Your task to perform on an android device: turn on javascript in the chrome app Image 0: 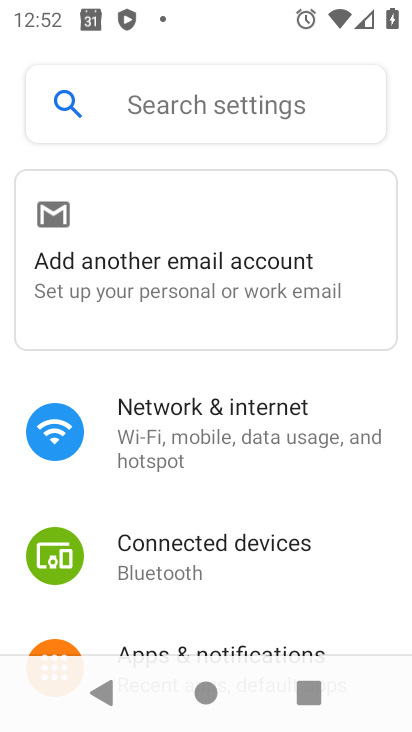
Step 0: press back button
Your task to perform on an android device: turn on javascript in the chrome app Image 1: 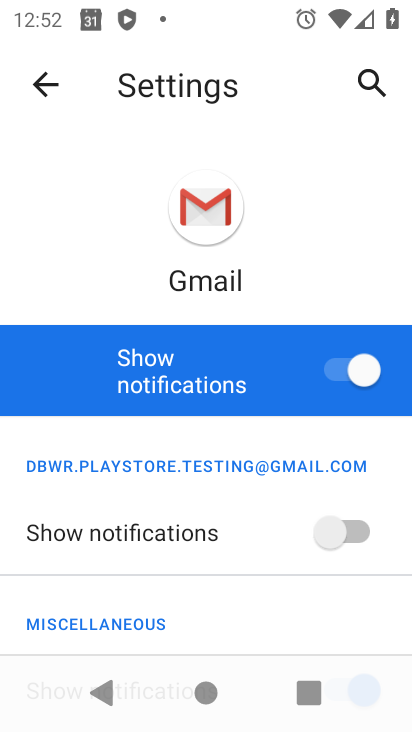
Step 1: press home button
Your task to perform on an android device: turn on javascript in the chrome app Image 2: 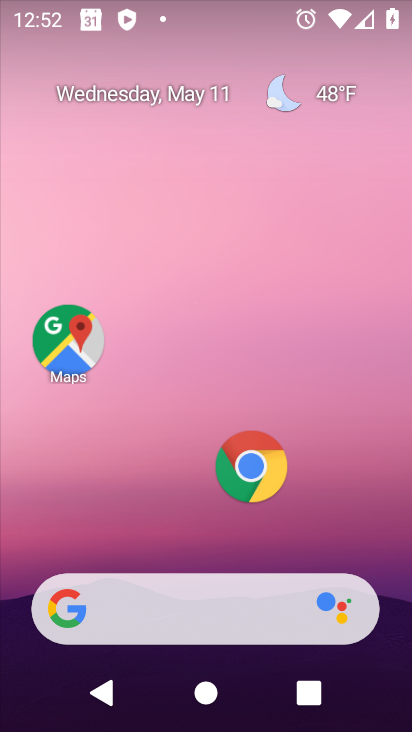
Step 2: drag from (154, 553) to (219, 125)
Your task to perform on an android device: turn on javascript in the chrome app Image 3: 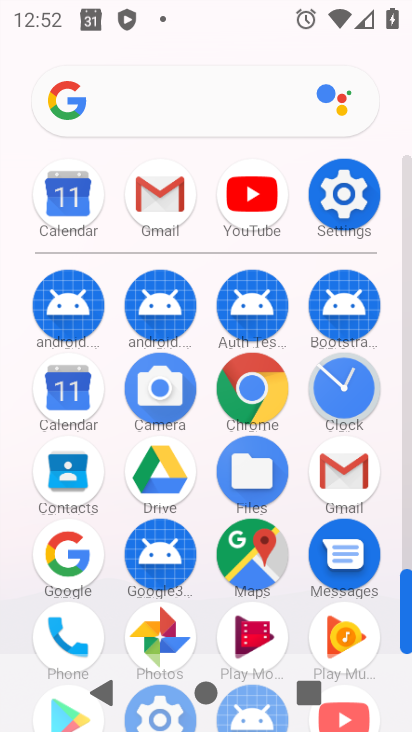
Step 3: click (241, 389)
Your task to perform on an android device: turn on javascript in the chrome app Image 4: 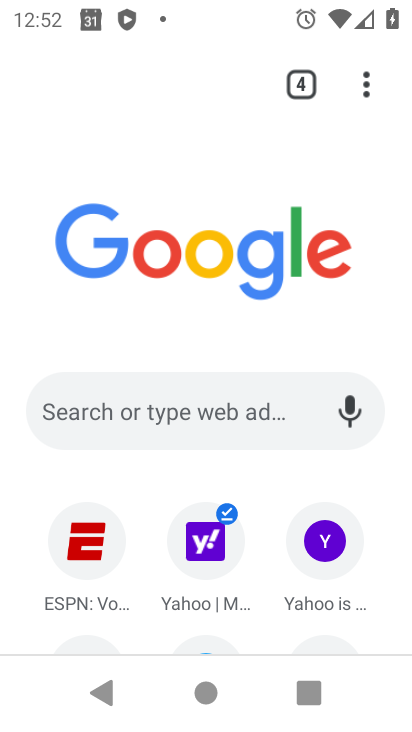
Step 4: drag from (359, 73) to (77, 516)
Your task to perform on an android device: turn on javascript in the chrome app Image 5: 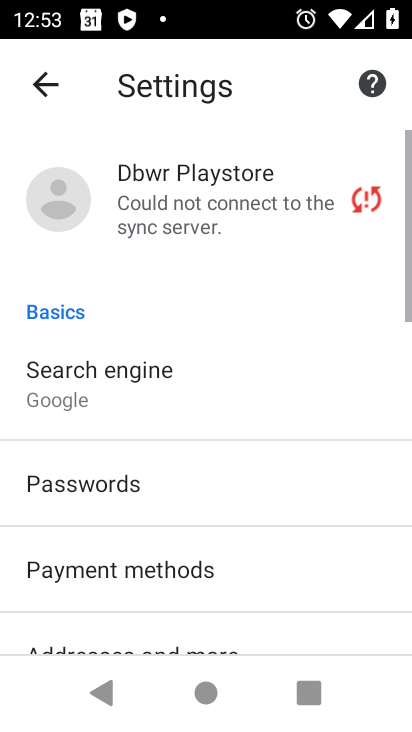
Step 5: drag from (130, 585) to (254, 168)
Your task to perform on an android device: turn on javascript in the chrome app Image 6: 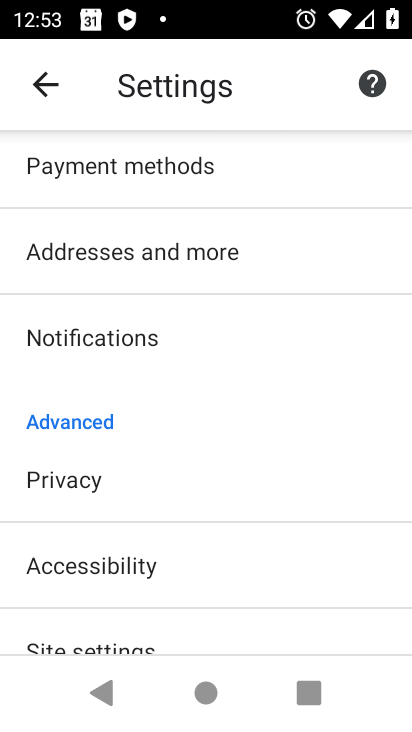
Step 6: drag from (175, 422) to (223, 141)
Your task to perform on an android device: turn on javascript in the chrome app Image 7: 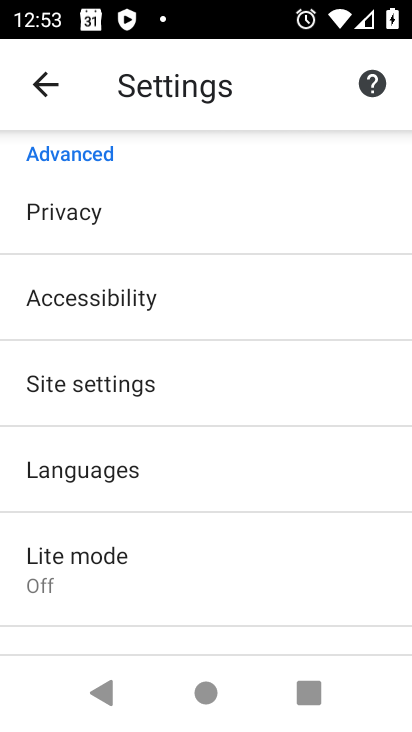
Step 7: drag from (141, 569) to (205, 269)
Your task to perform on an android device: turn on javascript in the chrome app Image 8: 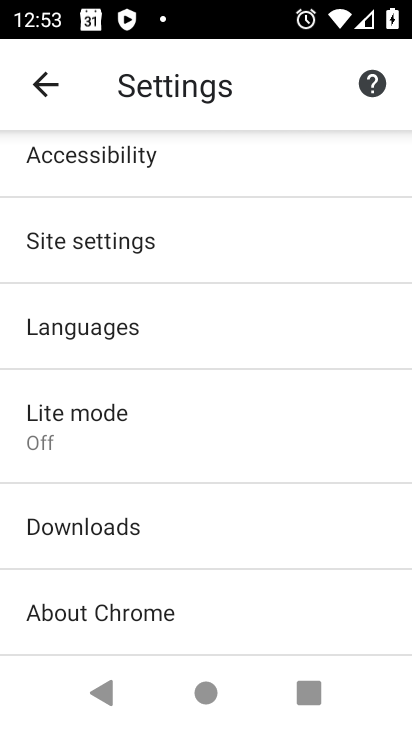
Step 8: click (117, 248)
Your task to perform on an android device: turn on javascript in the chrome app Image 9: 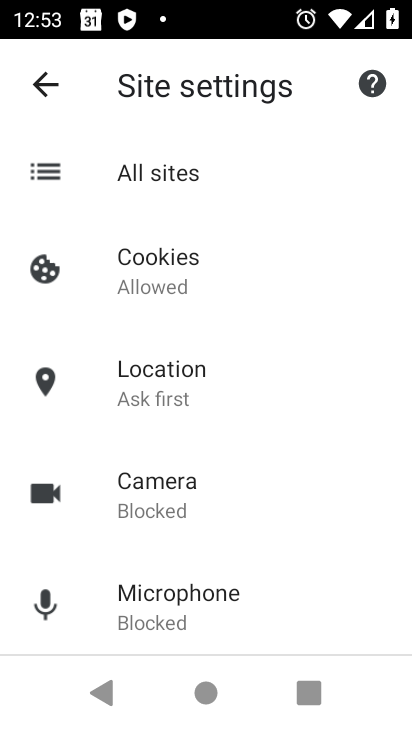
Step 9: drag from (180, 588) to (290, 174)
Your task to perform on an android device: turn on javascript in the chrome app Image 10: 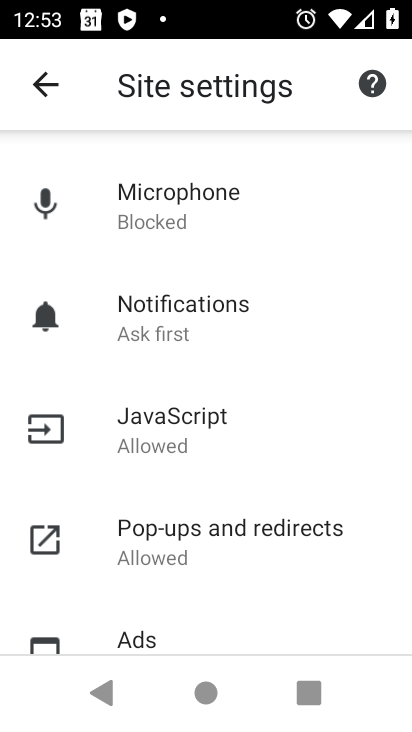
Step 10: click (149, 433)
Your task to perform on an android device: turn on javascript in the chrome app Image 11: 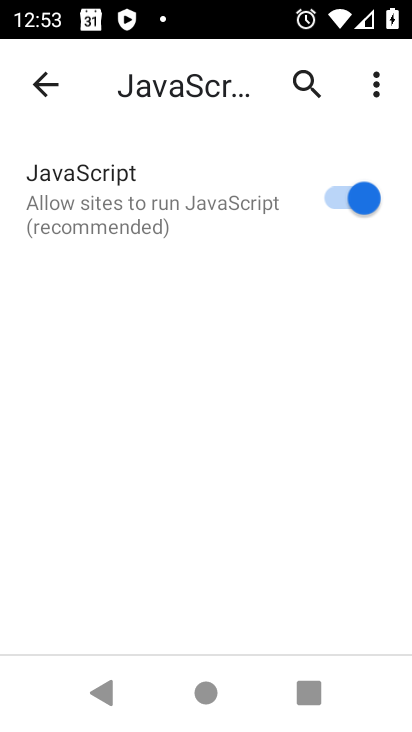
Step 11: task complete